Your task to perform on an android device: delete a single message in the gmail app Image 0: 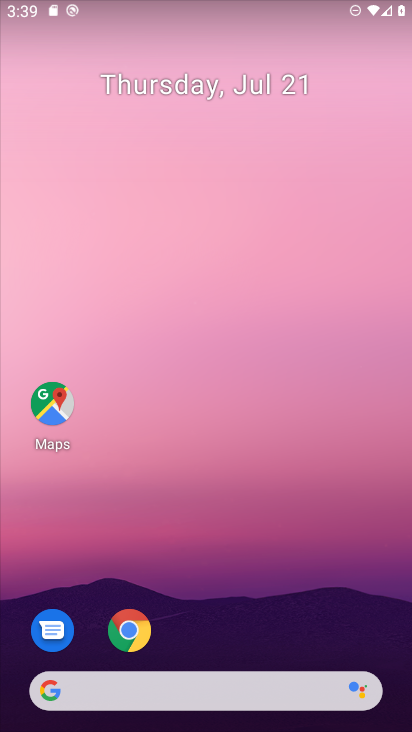
Step 0: drag from (215, 621) to (239, 71)
Your task to perform on an android device: delete a single message in the gmail app Image 1: 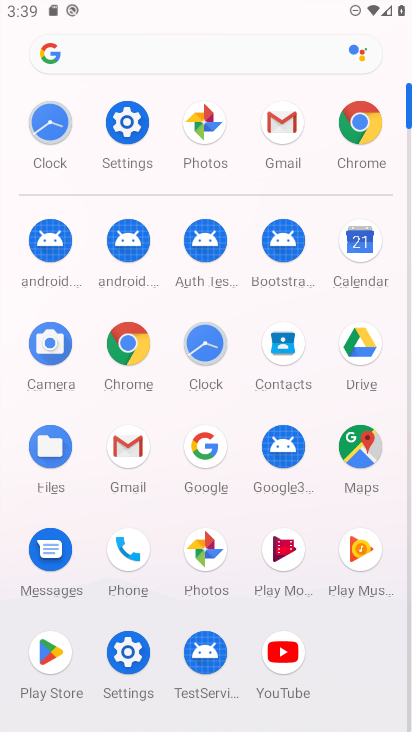
Step 1: click (276, 121)
Your task to perform on an android device: delete a single message in the gmail app Image 2: 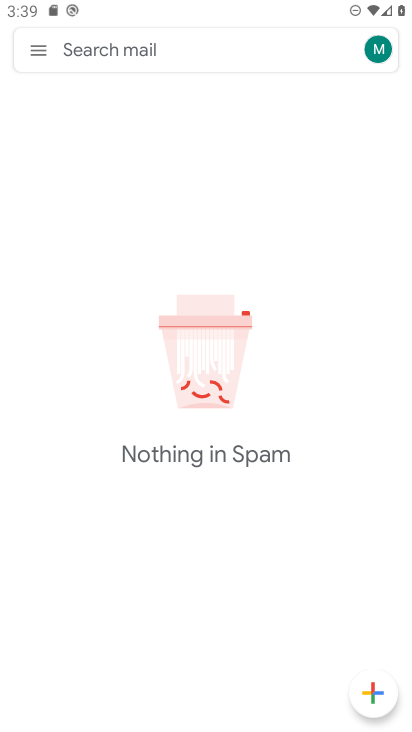
Step 2: click (41, 49)
Your task to perform on an android device: delete a single message in the gmail app Image 3: 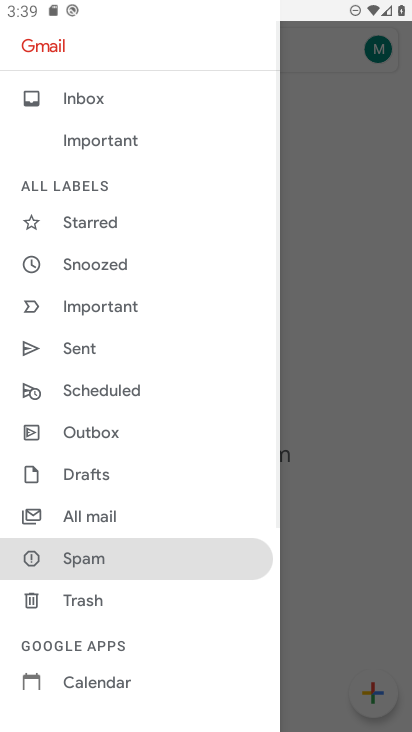
Step 3: click (101, 519)
Your task to perform on an android device: delete a single message in the gmail app Image 4: 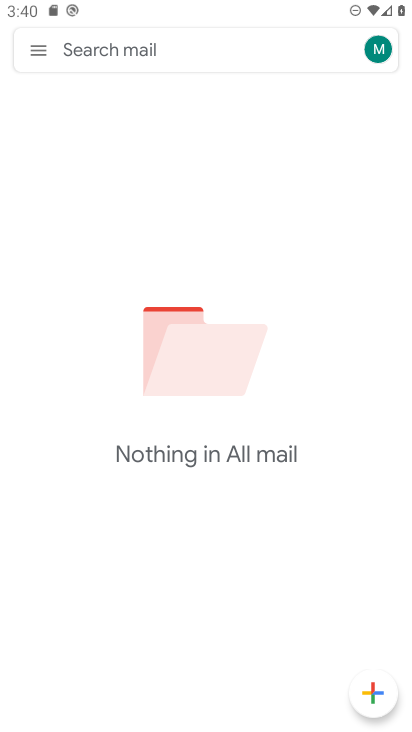
Step 4: task complete